Your task to perform on an android device: Open accessibility settings Image 0: 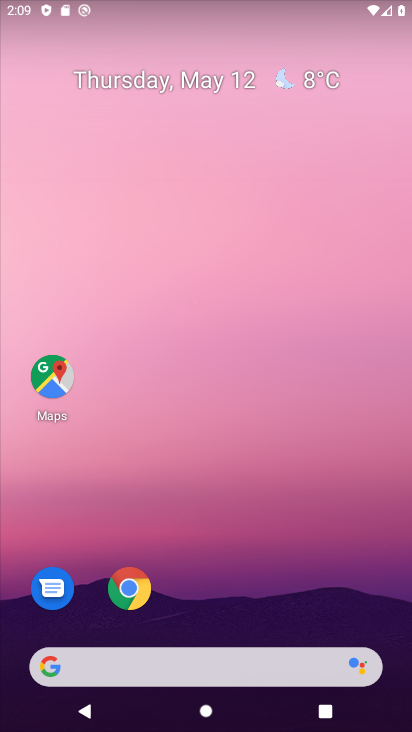
Step 0: drag from (303, 605) to (309, 122)
Your task to perform on an android device: Open accessibility settings Image 1: 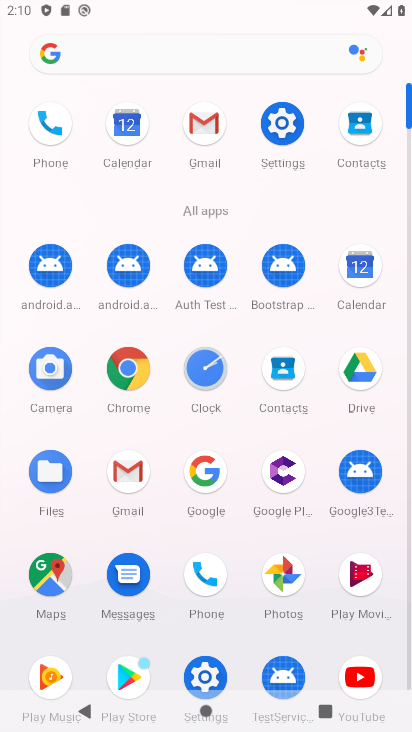
Step 1: click (284, 154)
Your task to perform on an android device: Open accessibility settings Image 2: 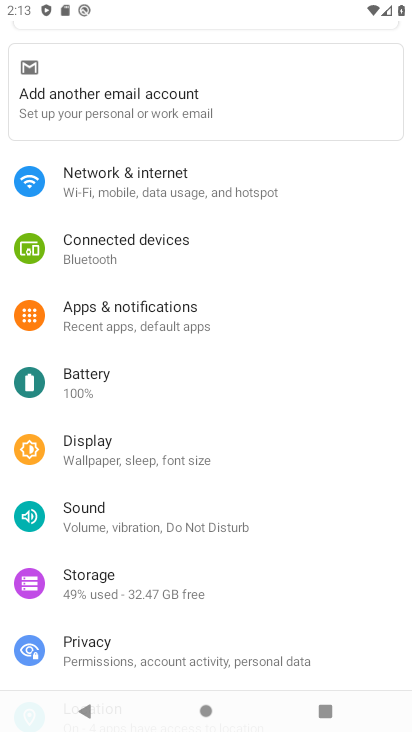
Step 2: drag from (120, 569) to (157, 313)
Your task to perform on an android device: Open accessibility settings Image 3: 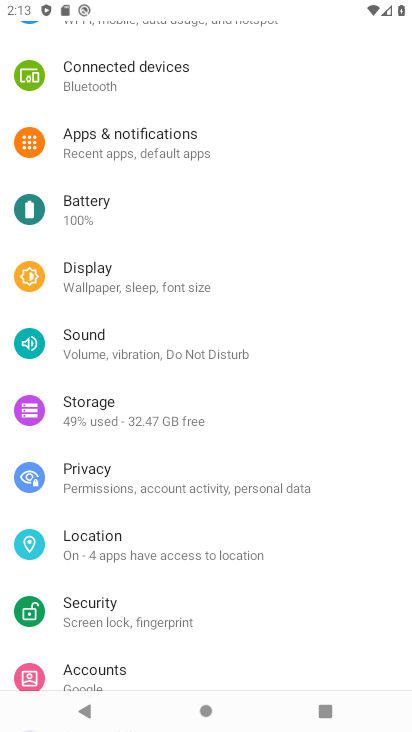
Step 3: drag from (150, 644) to (178, 451)
Your task to perform on an android device: Open accessibility settings Image 4: 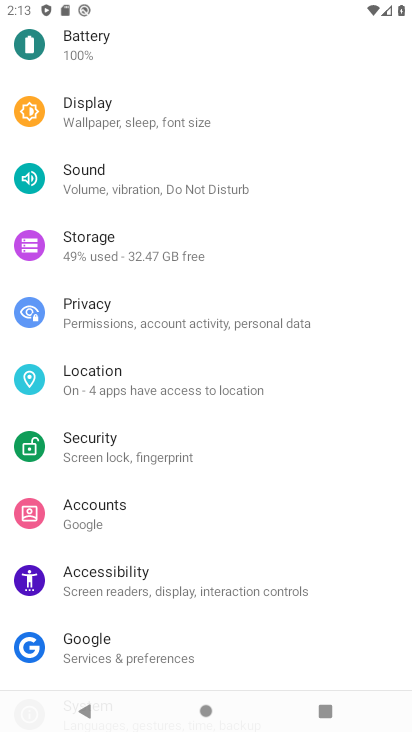
Step 4: click (161, 591)
Your task to perform on an android device: Open accessibility settings Image 5: 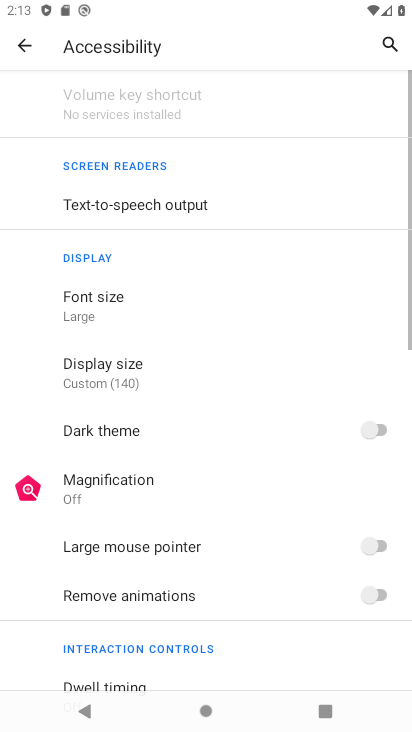
Step 5: task complete